Your task to perform on an android device: toggle location history Image 0: 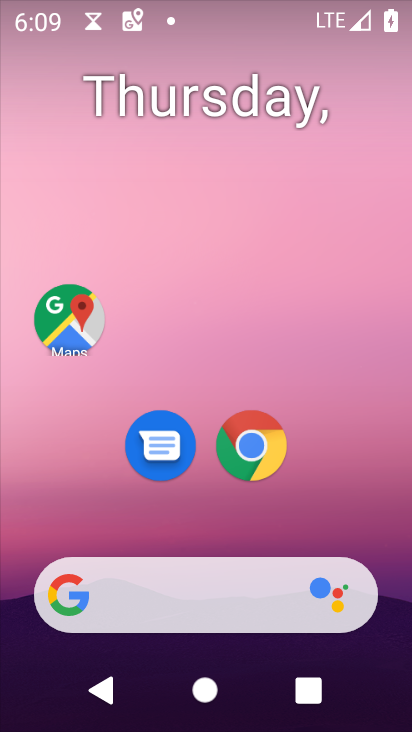
Step 0: drag from (324, 513) to (284, 149)
Your task to perform on an android device: toggle location history Image 1: 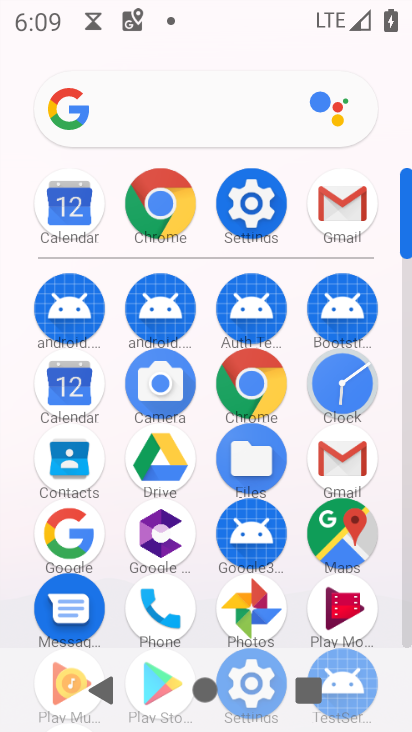
Step 1: click (334, 527)
Your task to perform on an android device: toggle location history Image 2: 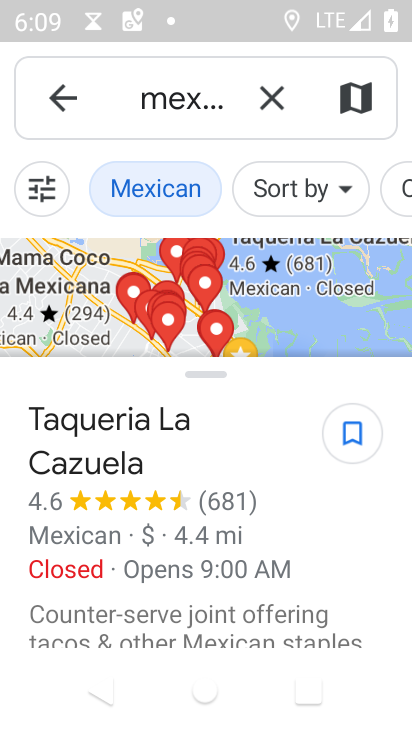
Step 2: click (56, 96)
Your task to perform on an android device: toggle location history Image 3: 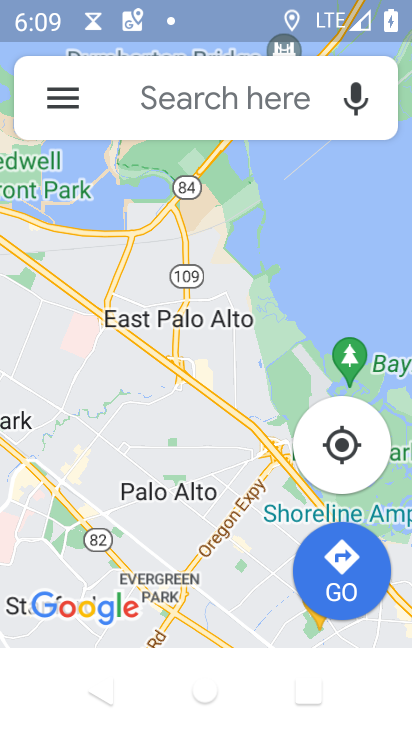
Step 3: click (69, 100)
Your task to perform on an android device: toggle location history Image 4: 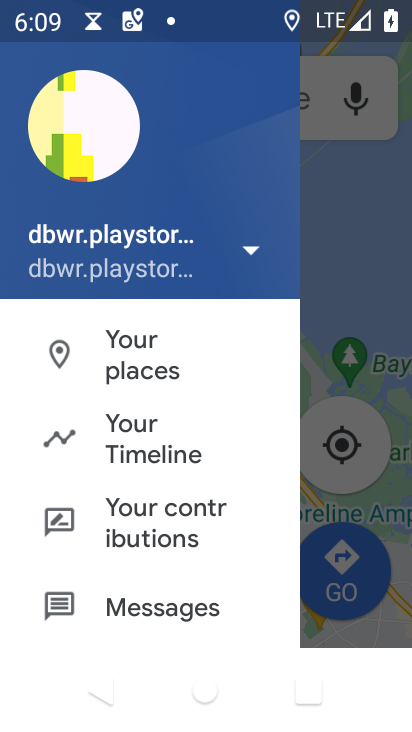
Step 4: click (149, 444)
Your task to perform on an android device: toggle location history Image 5: 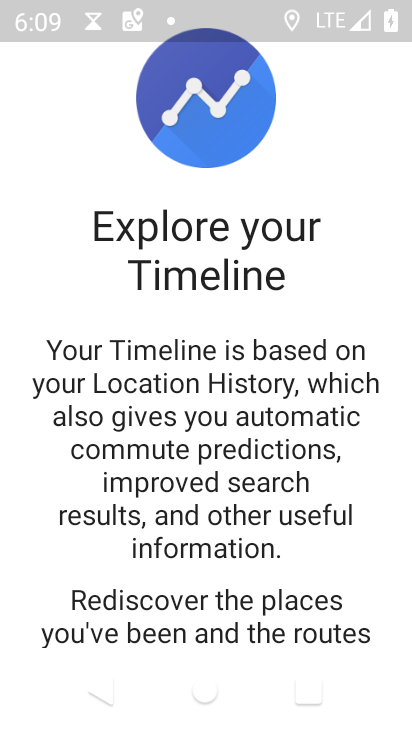
Step 5: drag from (378, 537) to (378, 172)
Your task to perform on an android device: toggle location history Image 6: 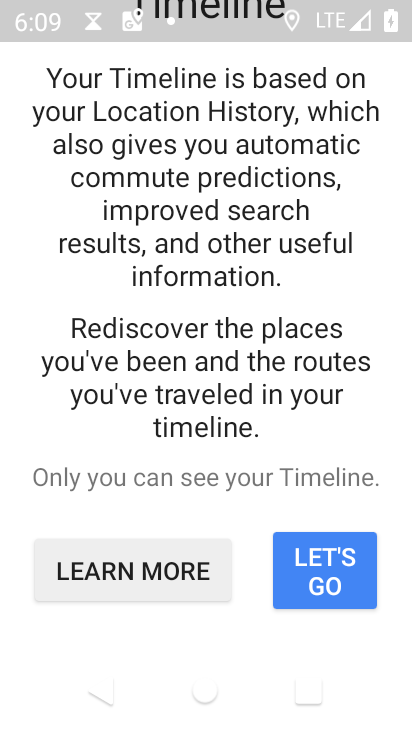
Step 6: click (330, 558)
Your task to perform on an android device: toggle location history Image 7: 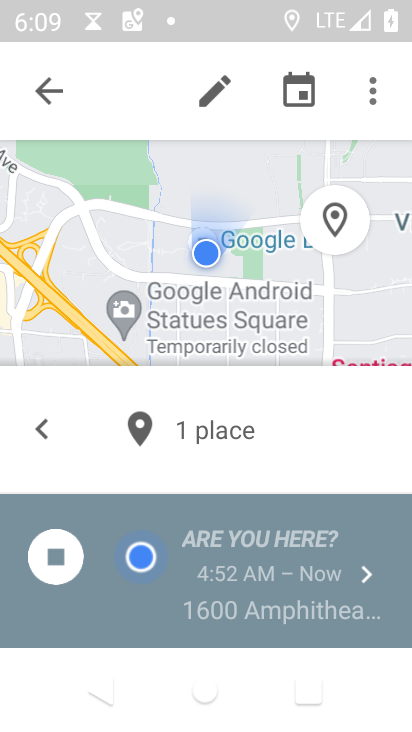
Step 7: click (367, 90)
Your task to perform on an android device: toggle location history Image 8: 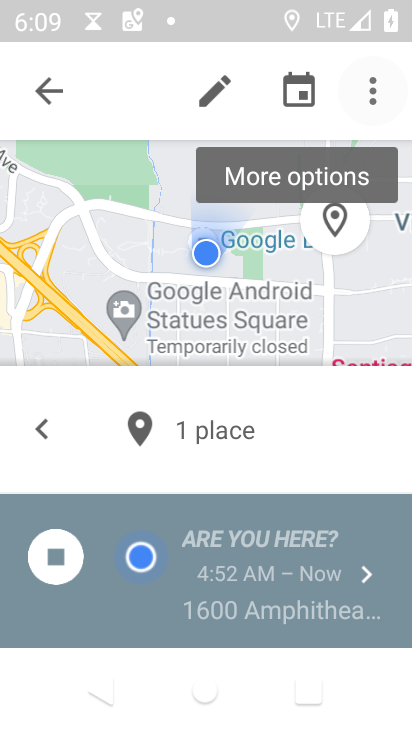
Step 8: click (367, 92)
Your task to perform on an android device: toggle location history Image 9: 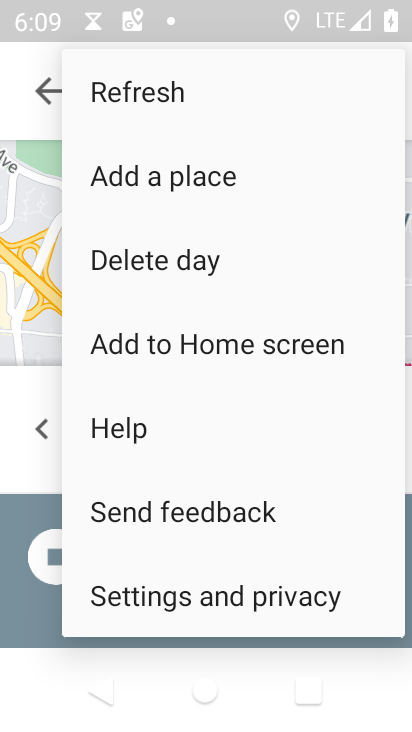
Step 9: click (237, 588)
Your task to perform on an android device: toggle location history Image 10: 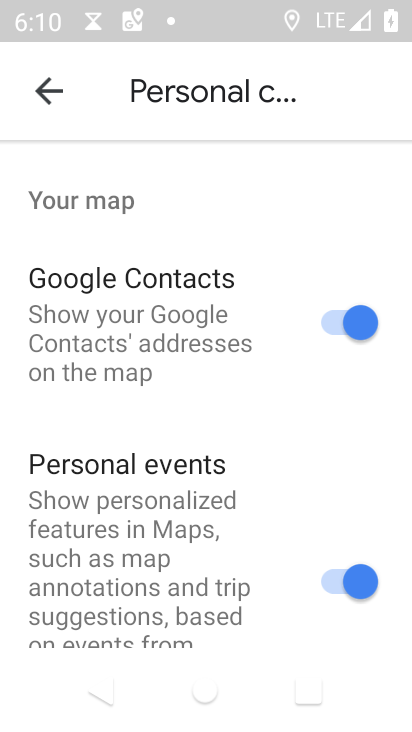
Step 10: drag from (287, 472) to (348, 163)
Your task to perform on an android device: toggle location history Image 11: 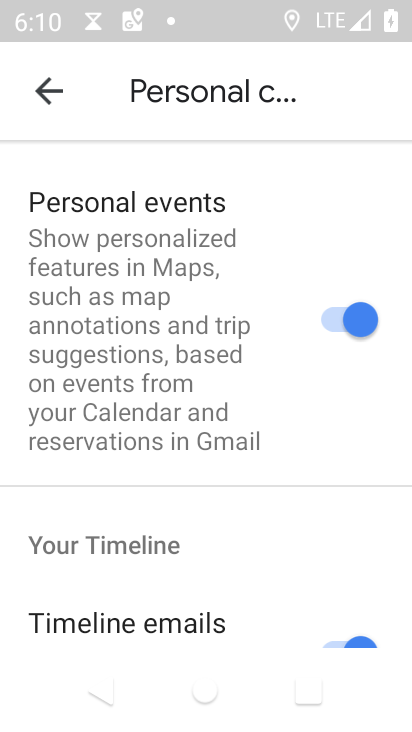
Step 11: drag from (252, 557) to (353, 112)
Your task to perform on an android device: toggle location history Image 12: 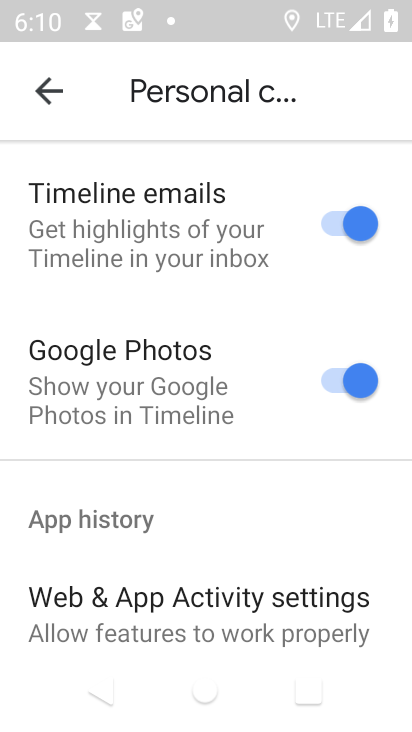
Step 12: drag from (244, 485) to (242, 84)
Your task to perform on an android device: toggle location history Image 13: 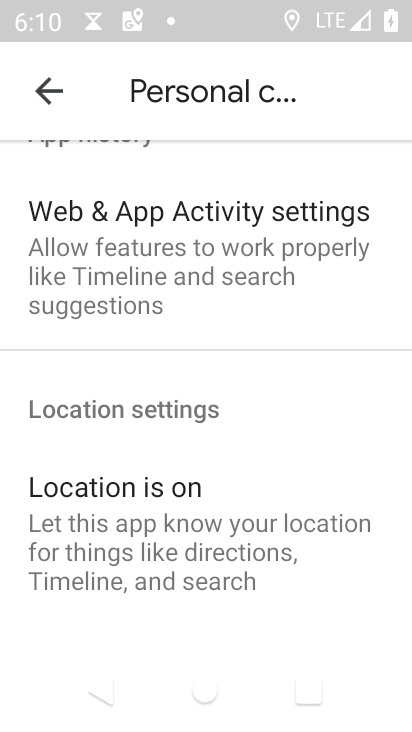
Step 13: drag from (258, 448) to (205, 158)
Your task to perform on an android device: toggle location history Image 14: 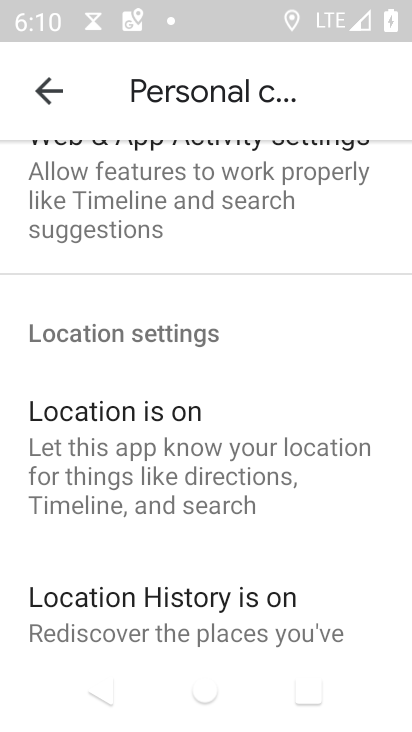
Step 14: click (236, 612)
Your task to perform on an android device: toggle location history Image 15: 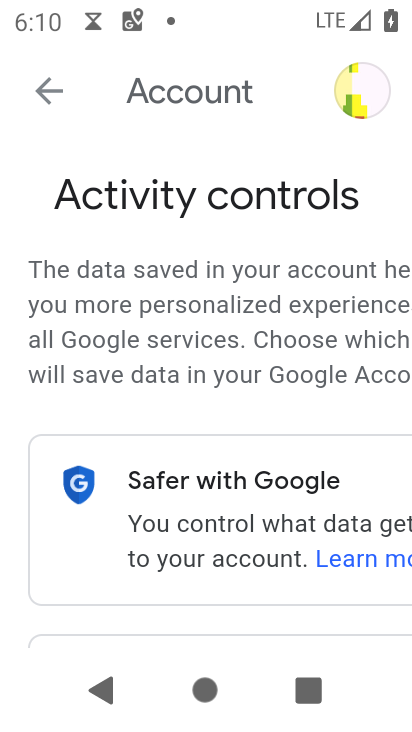
Step 15: drag from (57, 383) to (82, 162)
Your task to perform on an android device: toggle location history Image 16: 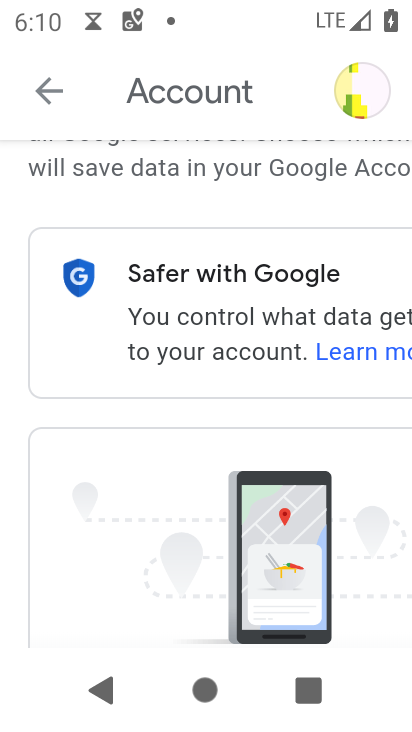
Step 16: drag from (23, 427) to (67, 192)
Your task to perform on an android device: toggle location history Image 17: 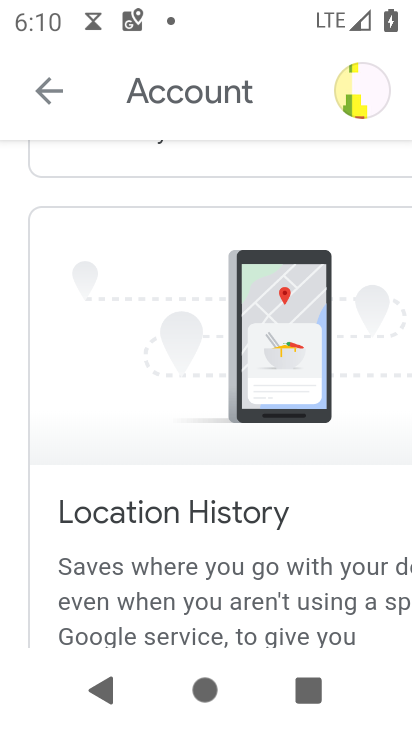
Step 17: drag from (140, 534) to (181, 154)
Your task to perform on an android device: toggle location history Image 18: 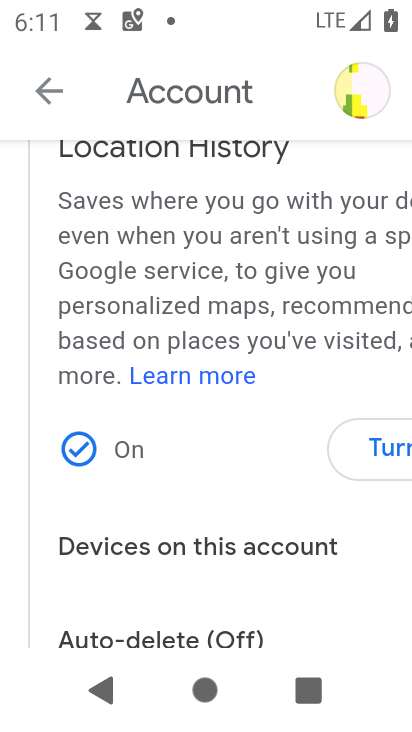
Step 18: click (364, 450)
Your task to perform on an android device: toggle location history Image 19: 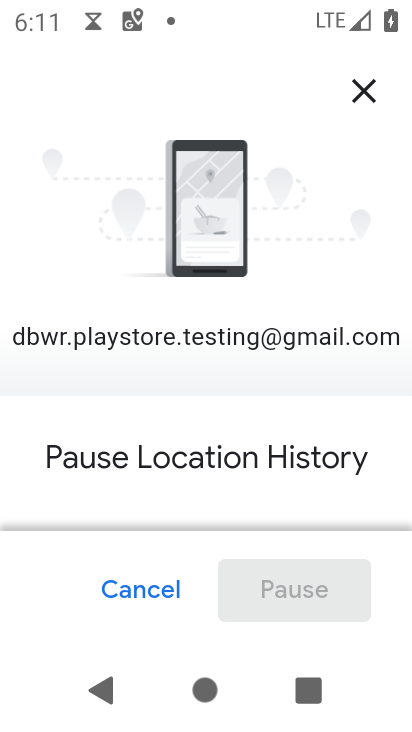
Step 19: drag from (309, 494) to (317, 137)
Your task to perform on an android device: toggle location history Image 20: 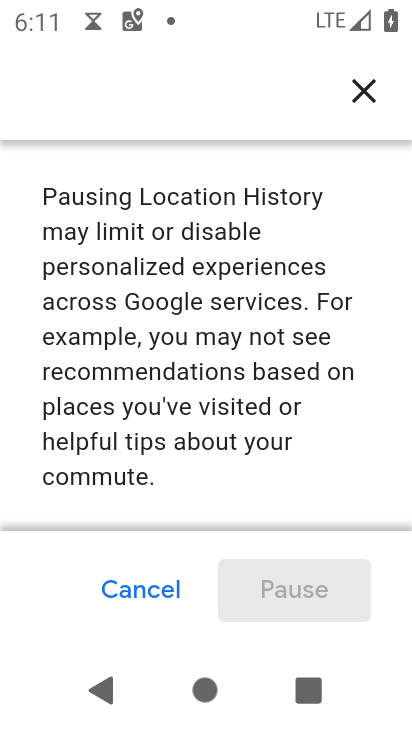
Step 20: drag from (328, 455) to (340, 186)
Your task to perform on an android device: toggle location history Image 21: 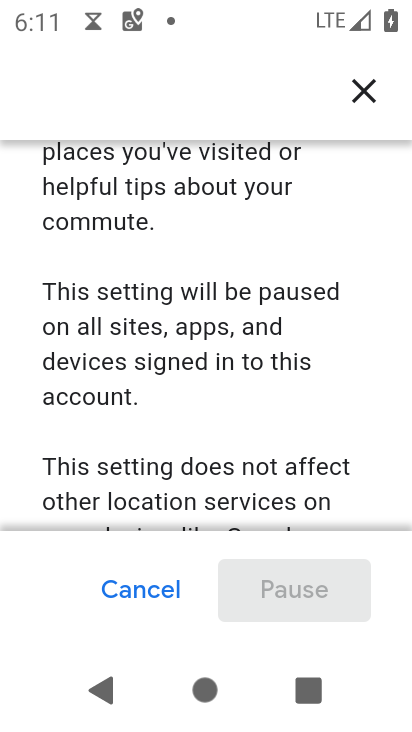
Step 21: drag from (325, 410) to (317, 106)
Your task to perform on an android device: toggle location history Image 22: 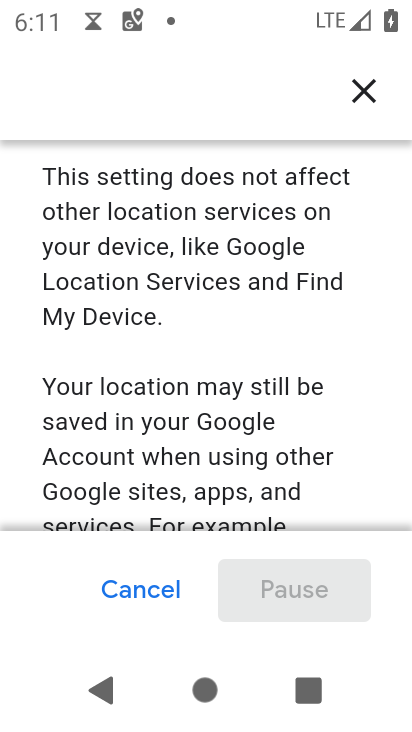
Step 22: drag from (341, 472) to (305, 108)
Your task to perform on an android device: toggle location history Image 23: 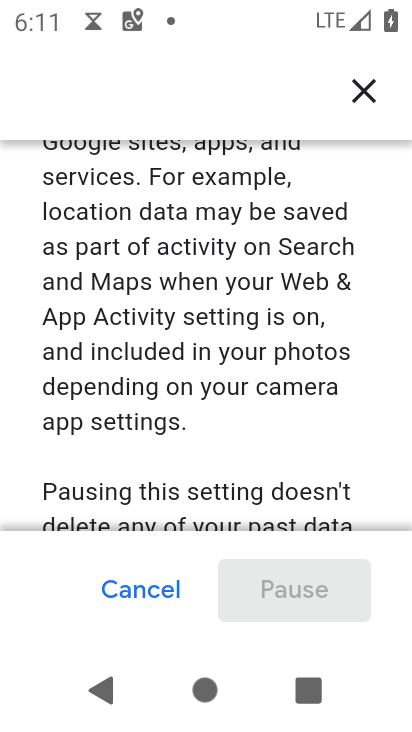
Step 23: drag from (365, 433) to (327, 97)
Your task to perform on an android device: toggle location history Image 24: 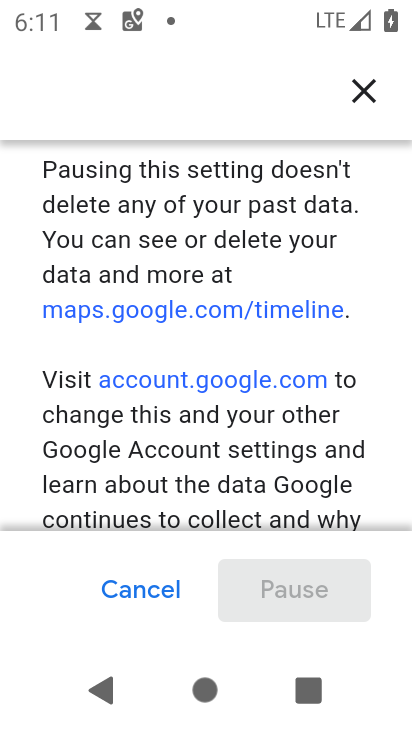
Step 24: drag from (382, 476) to (372, 129)
Your task to perform on an android device: toggle location history Image 25: 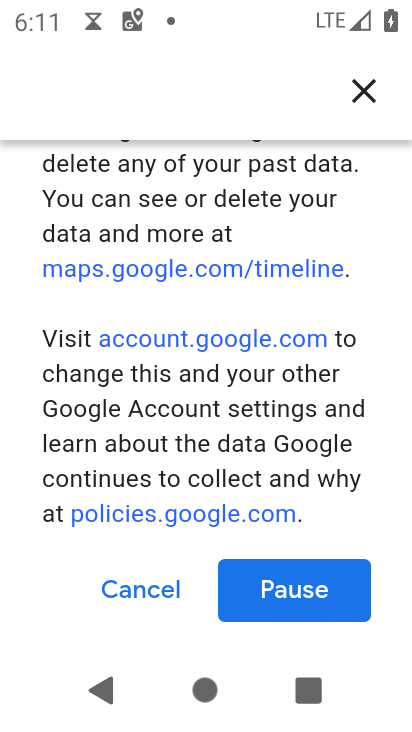
Step 25: click (330, 587)
Your task to perform on an android device: toggle location history Image 26: 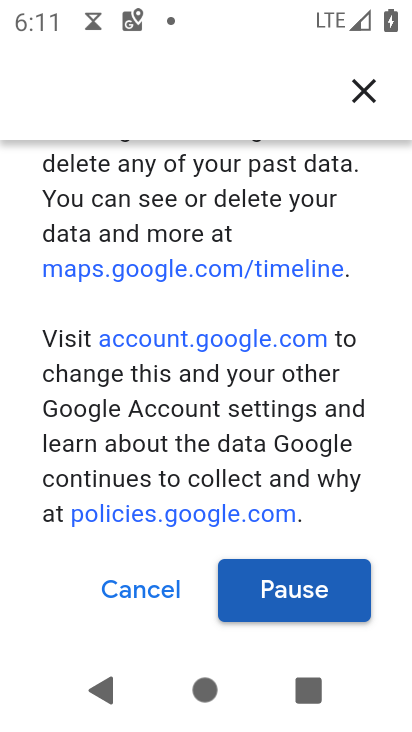
Step 26: click (317, 596)
Your task to perform on an android device: toggle location history Image 27: 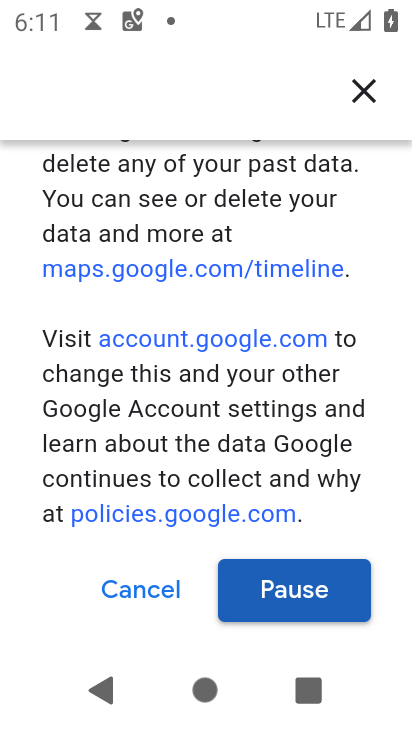
Step 27: click (317, 596)
Your task to perform on an android device: toggle location history Image 28: 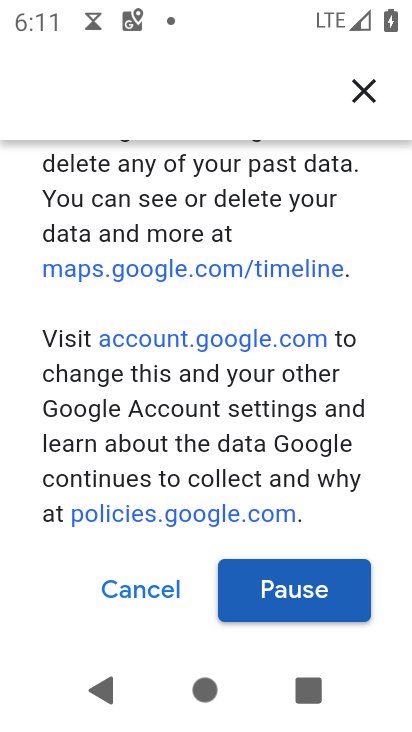
Step 28: click (317, 596)
Your task to perform on an android device: toggle location history Image 29: 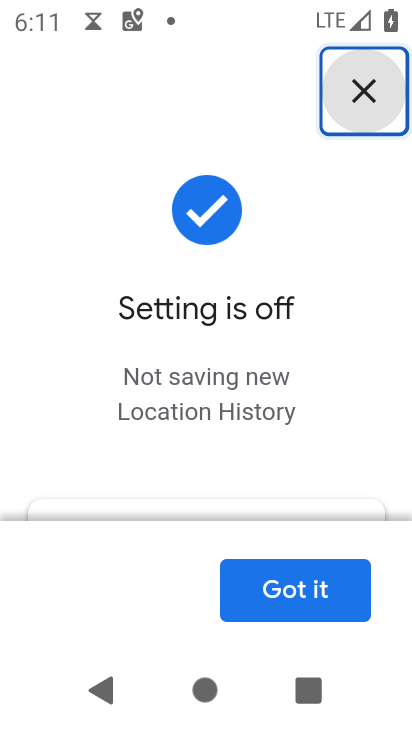
Step 29: click (317, 596)
Your task to perform on an android device: toggle location history Image 30: 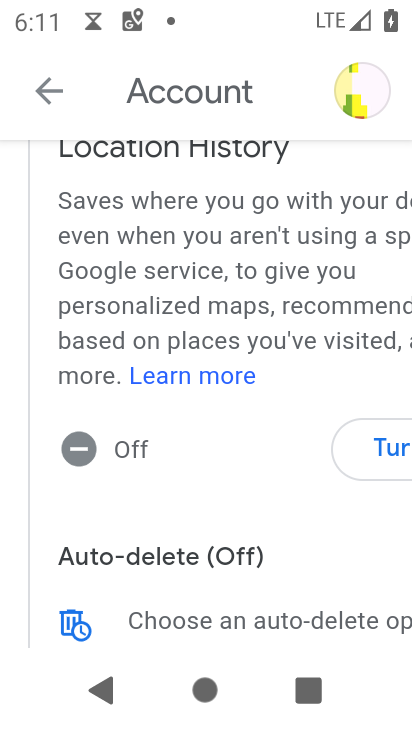
Step 30: task complete